Your task to perform on an android device: change alarm snooze length Image 0: 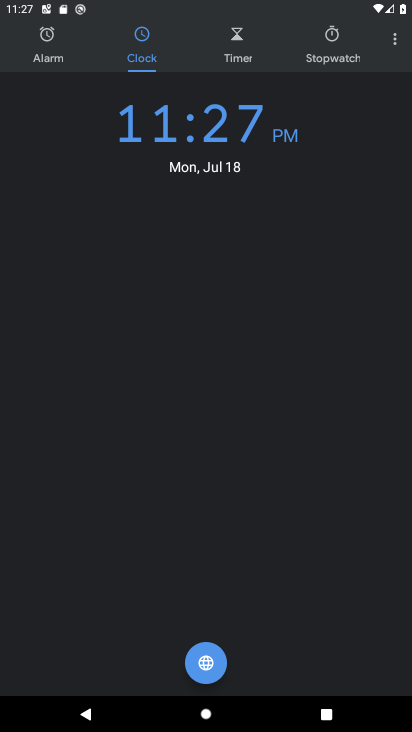
Step 0: press home button
Your task to perform on an android device: change alarm snooze length Image 1: 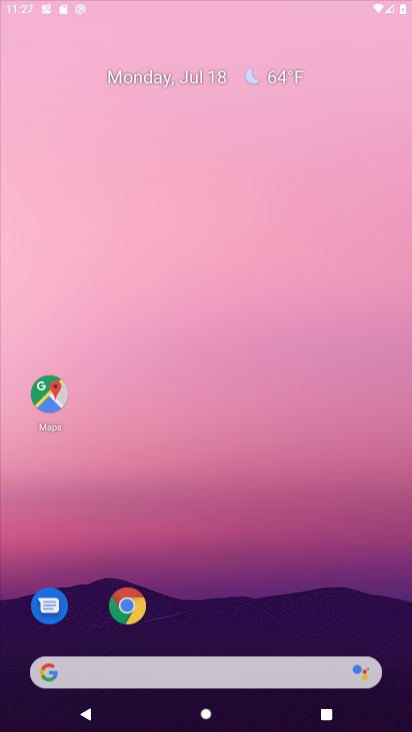
Step 1: drag from (239, 499) to (247, 64)
Your task to perform on an android device: change alarm snooze length Image 2: 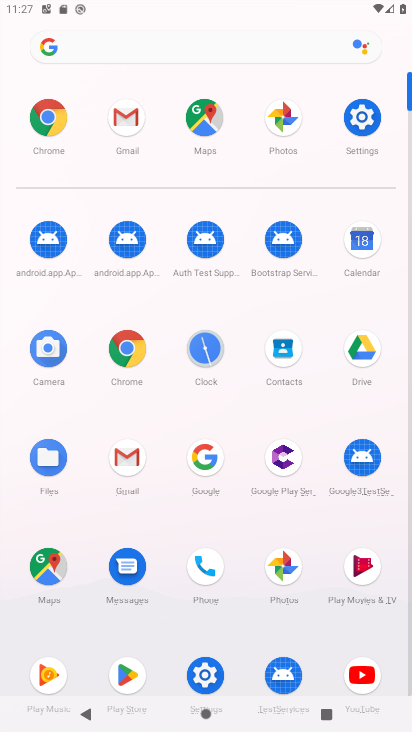
Step 2: drag from (245, 167) to (226, 52)
Your task to perform on an android device: change alarm snooze length Image 3: 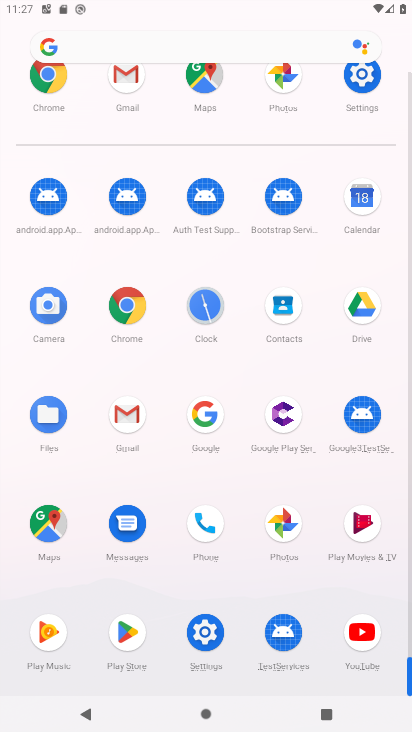
Step 3: click (207, 315)
Your task to perform on an android device: change alarm snooze length Image 4: 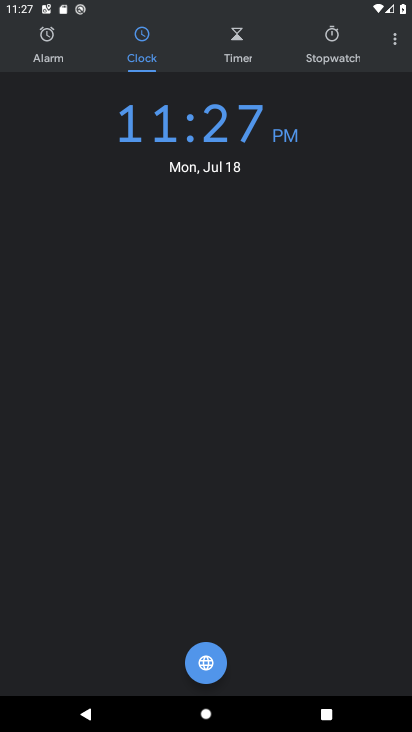
Step 4: click (42, 68)
Your task to perform on an android device: change alarm snooze length Image 5: 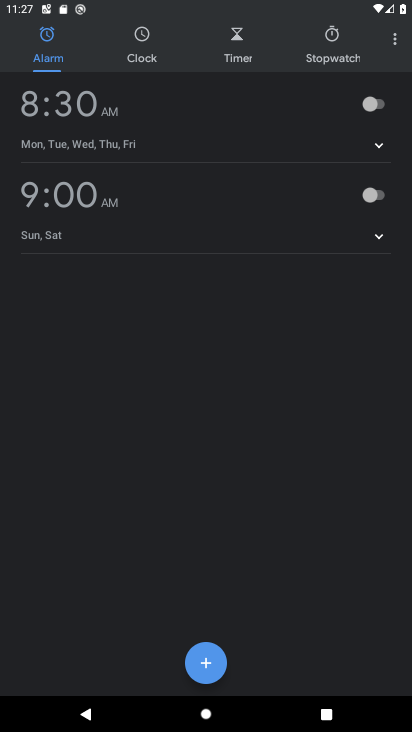
Step 5: click (389, 37)
Your task to perform on an android device: change alarm snooze length Image 6: 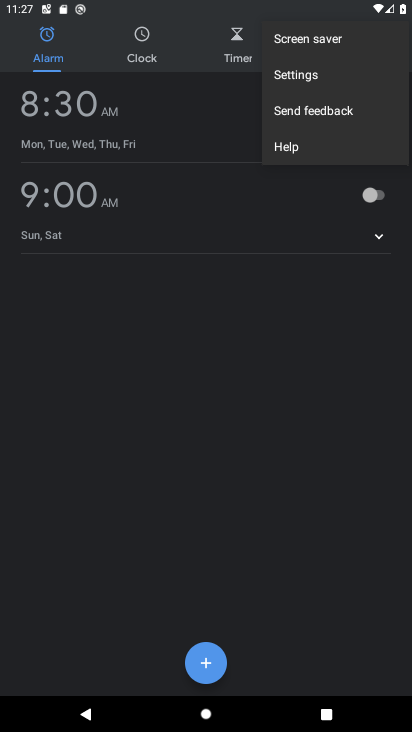
Step 6: click (310, 74)
Your task to perform on an android device: change alarm snooze length Image 7: 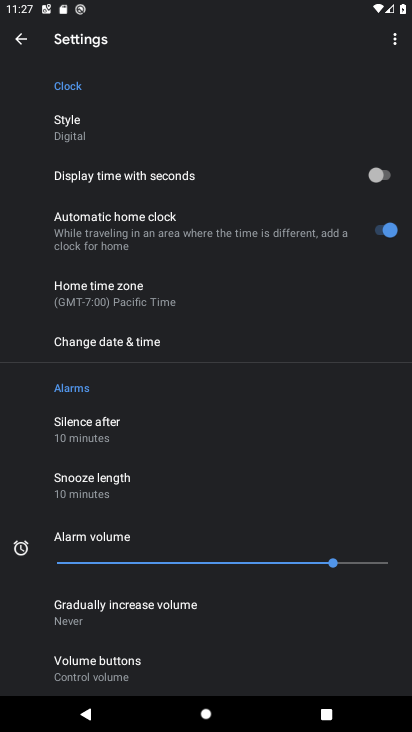
Step 7: click (187, 476)
Your task to perform on an android device: change alarm snooze length Image 8: 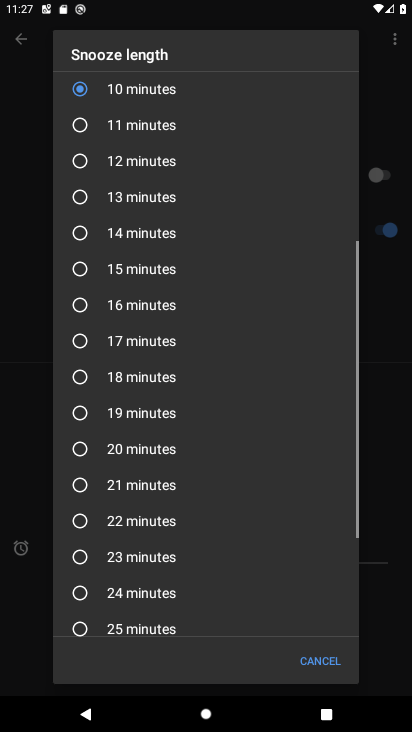
Step 8: click (170, 192)
Your task to perform on an android device: change alarm snooze length Image 9: 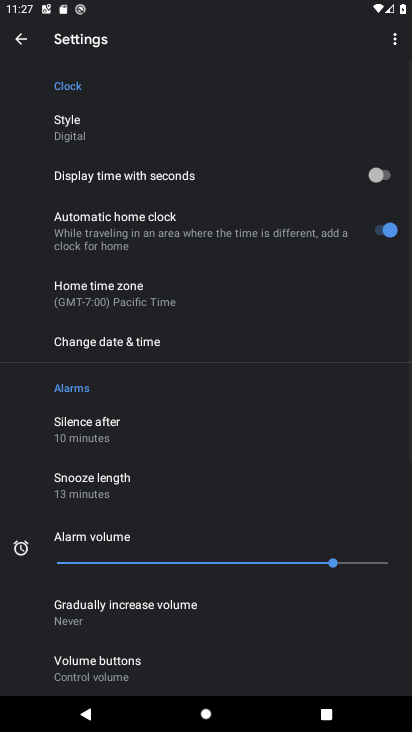
Step 9: task complete